Your task to perform on an android device: Go to Google Image 0: 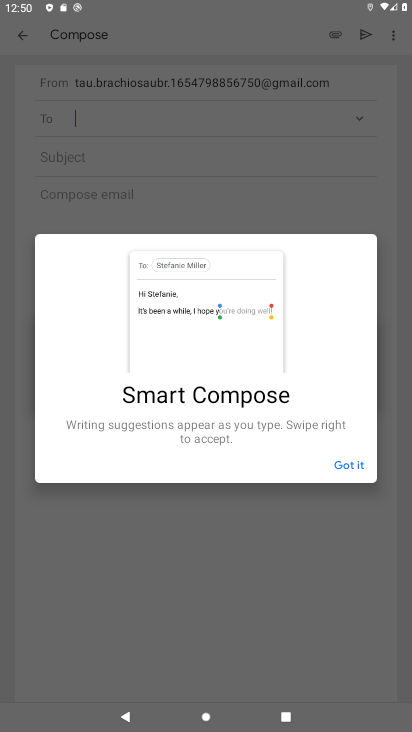
Step 0: press home button
Your task to perform on an android device: Go to Google Image 1: 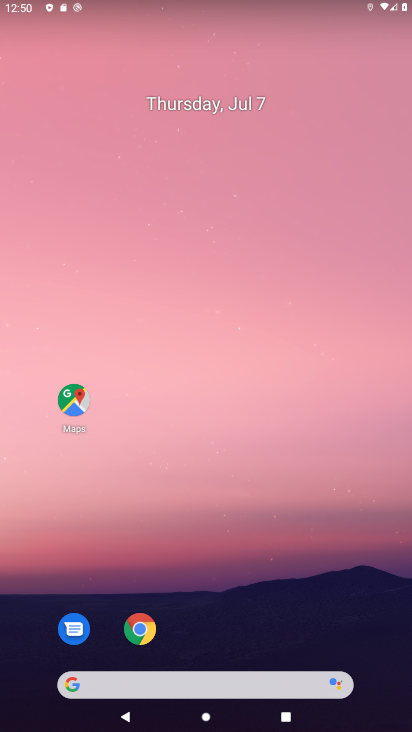
Step 1: drag from (219, 626) to (195, 84)
Your task to perform on an android device: Go to Google Image 2: 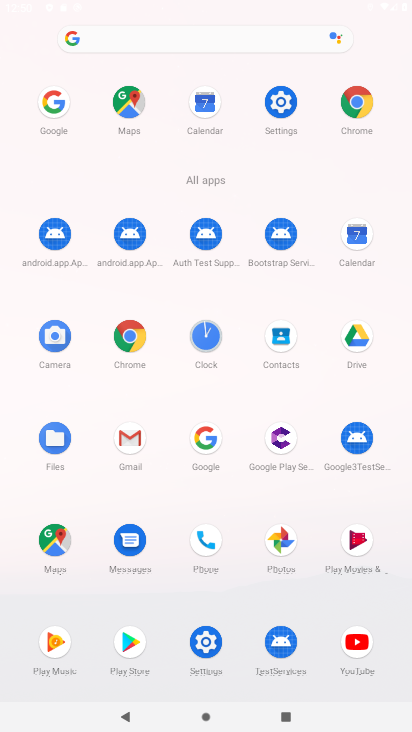
Step 2: click (54, 102)
Your task to perform on an android device: Go to Google Image 3: 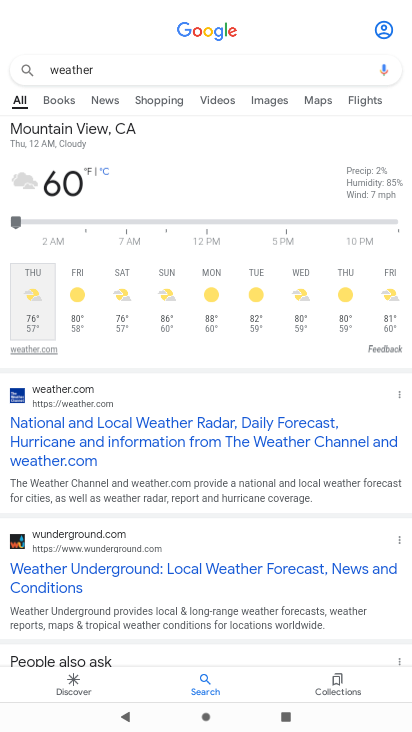
Step 3: task complete